Your task to perform on an android device: all mails in gmail Image 0: 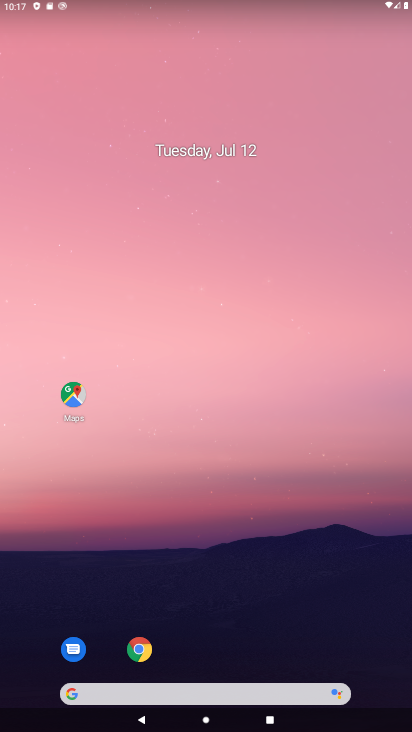
Step 0: drag from (362, 644) to (289, 169)
Your task to perform on an android device: all mails in gmail Image 1: 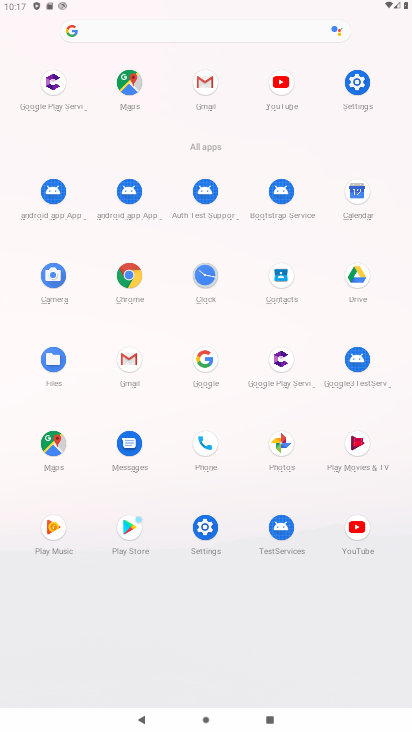
Step 1: click (126, 361)
Your task to perform on an android device: all mails in gmail Image 2: 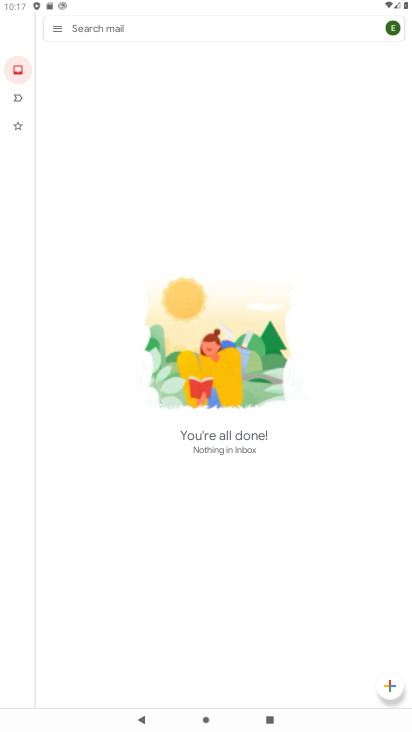
Step 2: click (53, 30)
Your task to perform on an android device: all mails in gmail Image 3: 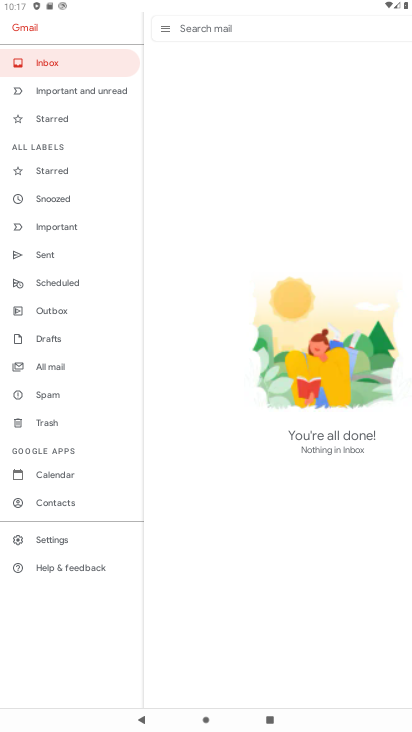
Step 3: click (51, 361)
Your task to perform on an android device: all mails in gmail Image 4: 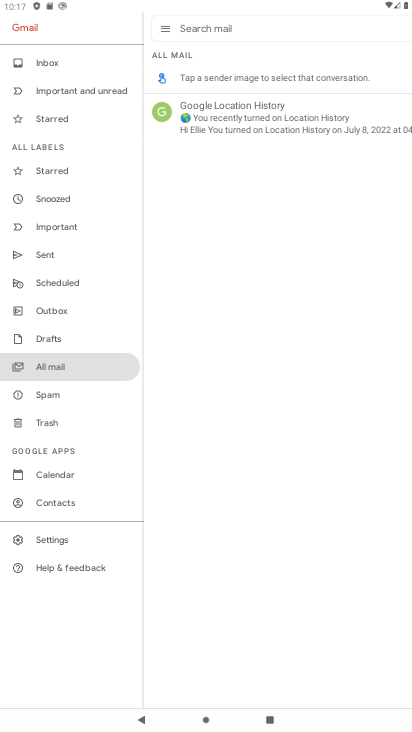
Step 4: task complete